Your task to perform on an android device: Open internet settings Image 0: 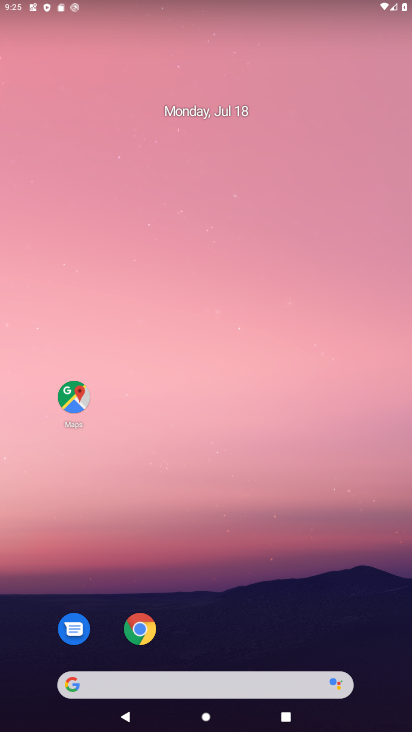
Step 0: drag from (259, 548) to (226, 57)
Your task to perform on an android device: Open internet settings Image 1: 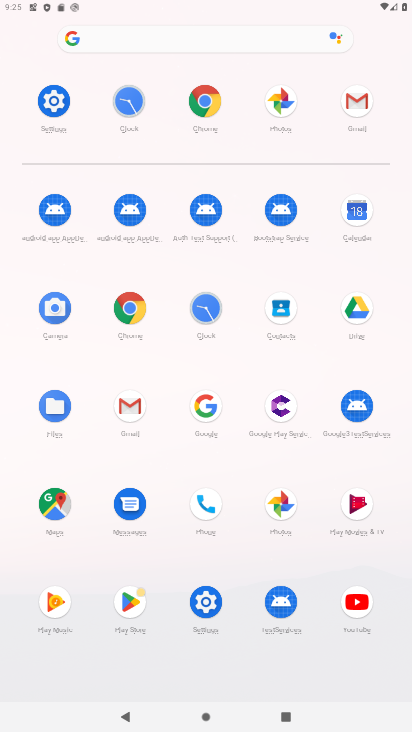
Step 1: click (59, 101)
Your task to perform on an android device: Open internet settings Image 2: 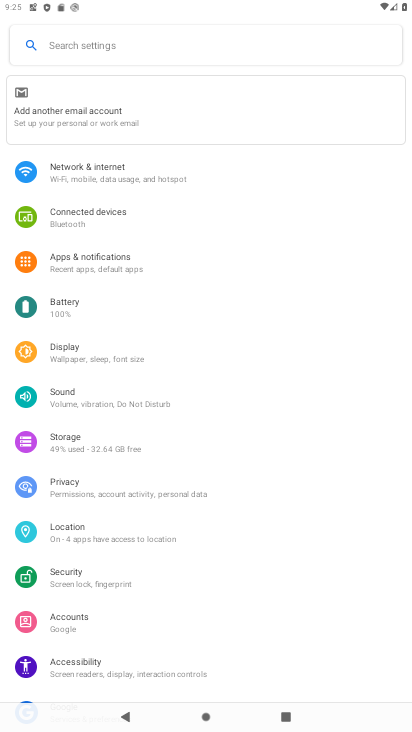
Step 2: click (109, 169)
Your task to perform on an android device: Open internet settings Image 3: 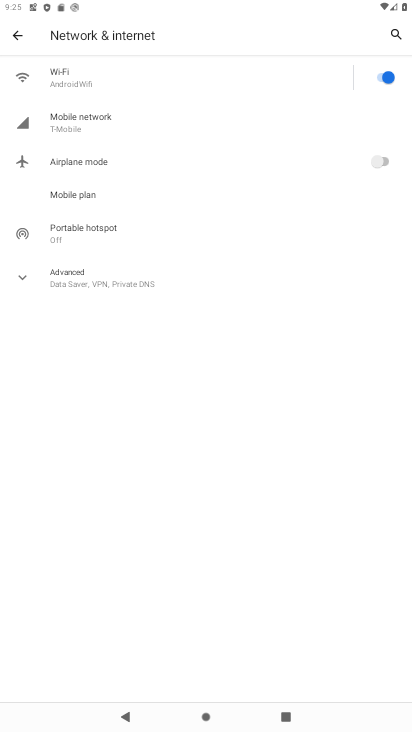
Step 3: click (109, 280)
Your task to perform on an android device: Open internet settings Image 4: 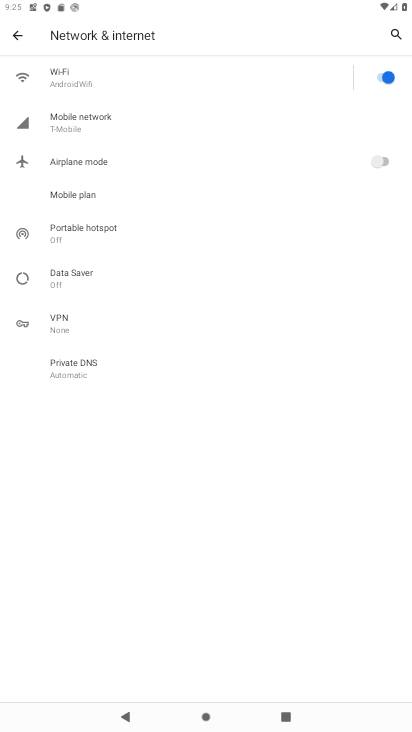
Step 4: task complete